Your task to perform on an android device: turn on sleep mode Image 0: 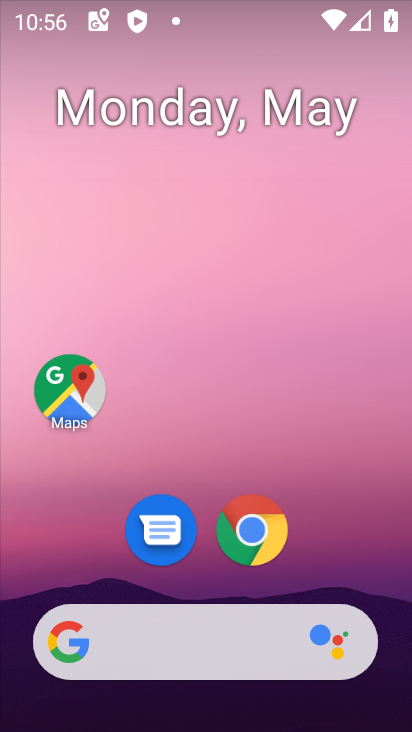
Step 0: drag from (333, 555) to (236, 159)
Your task to perform on an android device: turn on sleep mode Image 1: 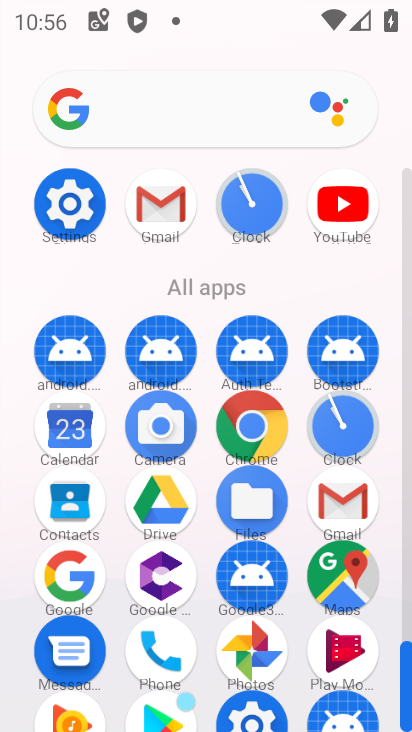
Step 1: click (70, 204)
Your task to perform on an android device: turn on sleep mode Image 2: 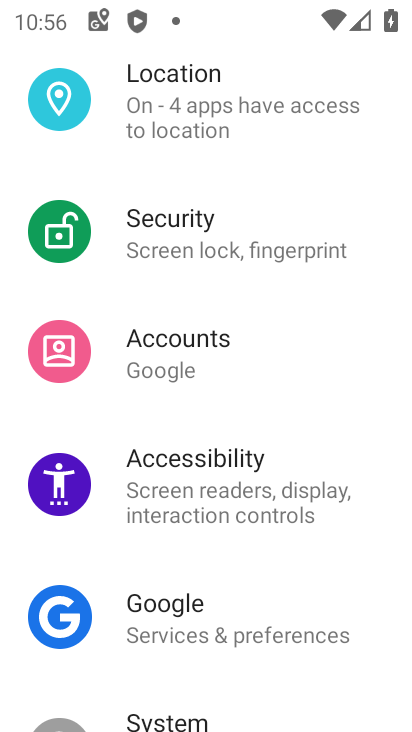
Step 2: drag from (262, 370) to (285, 501)
Your task to perform on an android device: turn on sleep mode Image 3: 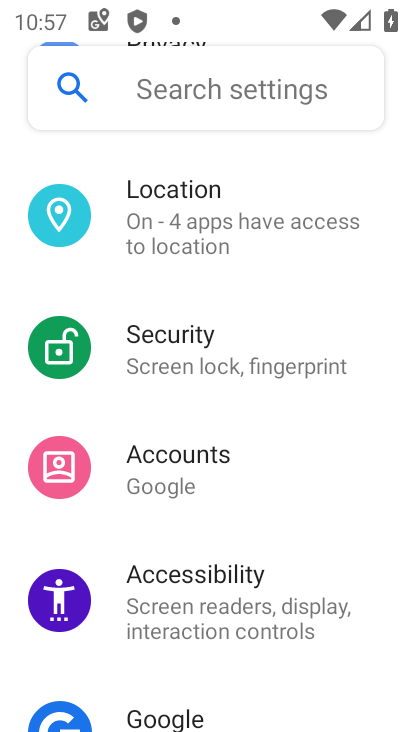
Step 3: drag from (244, 305) to (241, 421)
Your task to perform on an android device: turn on sleep mode Image 4: 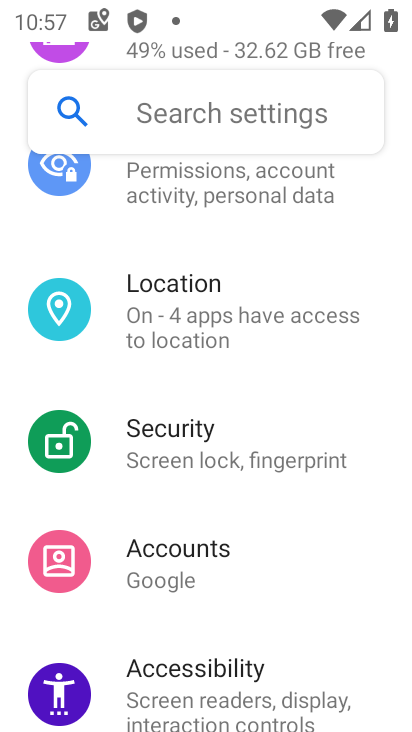
Step 4: drag from (222, 250) to (239, 407)
Your task to perform on an android device: turn on sleep mode Image 5: 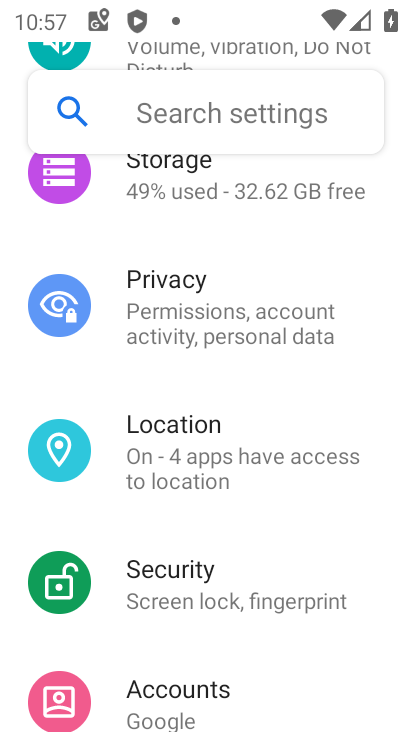
Step 5: drag from (234, 266) to (231, 380)
Your task to perform on an android device: turn on sleep mode Image 6: 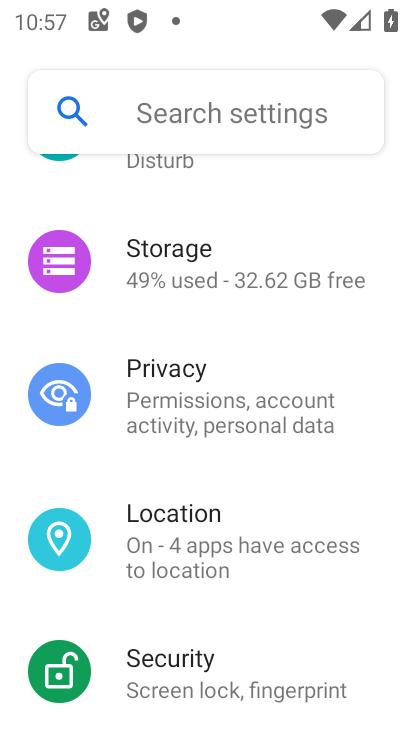
Step 6: drag from (225, 224) to (238, 362)
Your task to perform on an android device: turn on sleep mode Image 7: 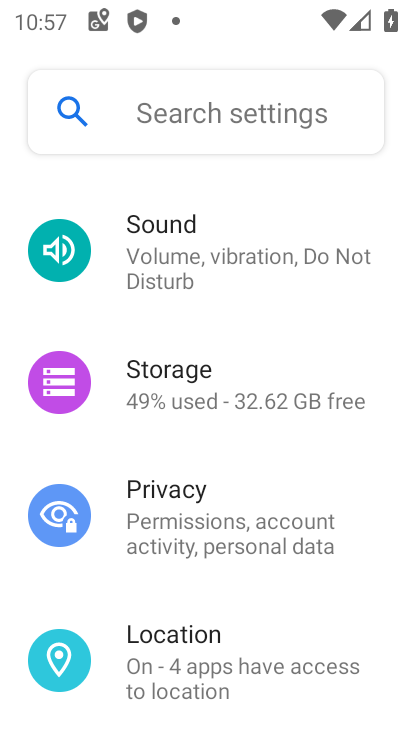
Step 7: drag from (236, 212) to (243, 320)
Your task to perform on an android device: turn on sleep mode Image 8: 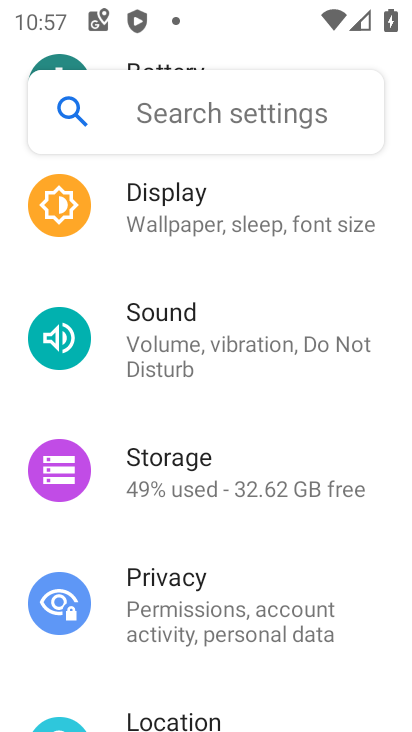
Step 8: click (234, 225)
Your task to perform on an android device: turn on sleep mode Image 9: 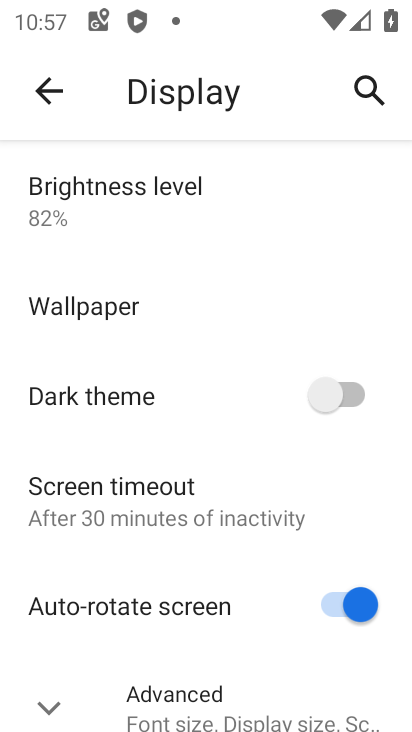
Step 9: click (149, 487)
Your task to perform on an android device: turn on sleep mode Image 10: 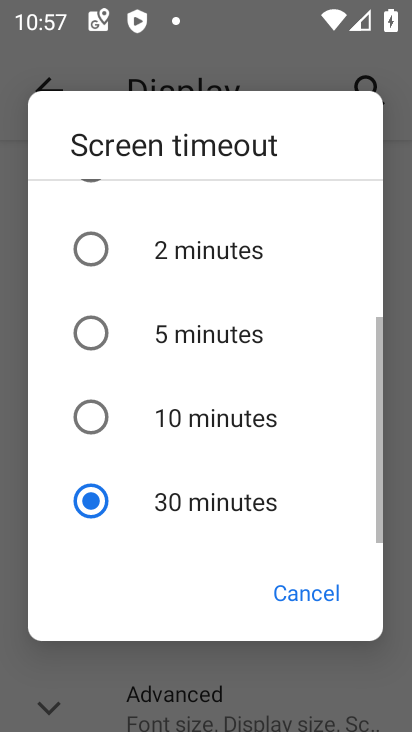
Step 10: drag from (199, 324) to (228, 391)
Your task to perform on an android device: turn on sleep mode Image 11: 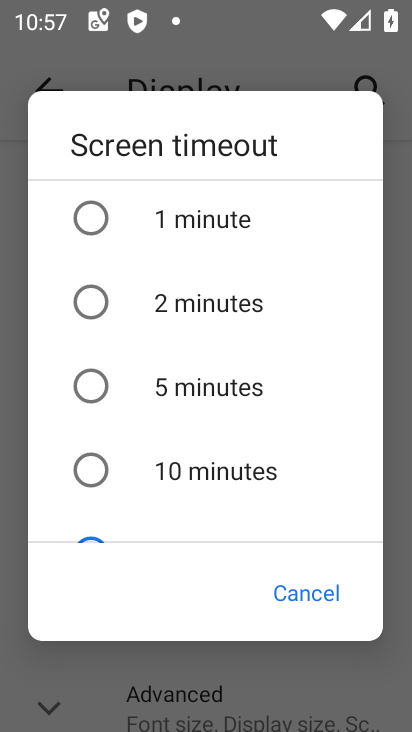
Step 11: drag from (227, 253) to (227, 357)
Your task to perform on an android device: turn on sleep mode Image 12: 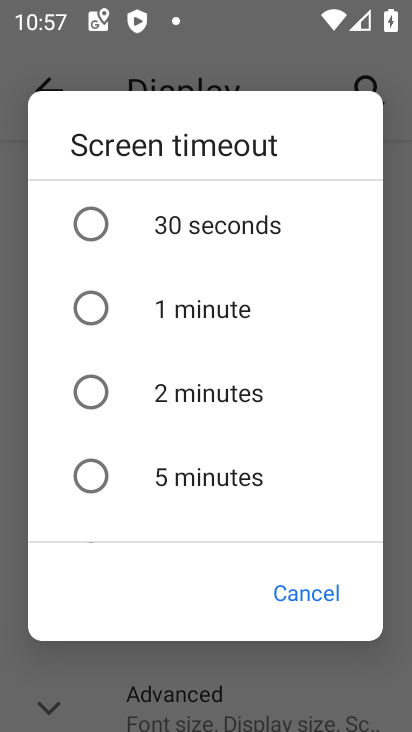
Step 12: drag from (185, 239) to (224, 347)
Your task to perform on an android device: turn on sleep mode Image 13: 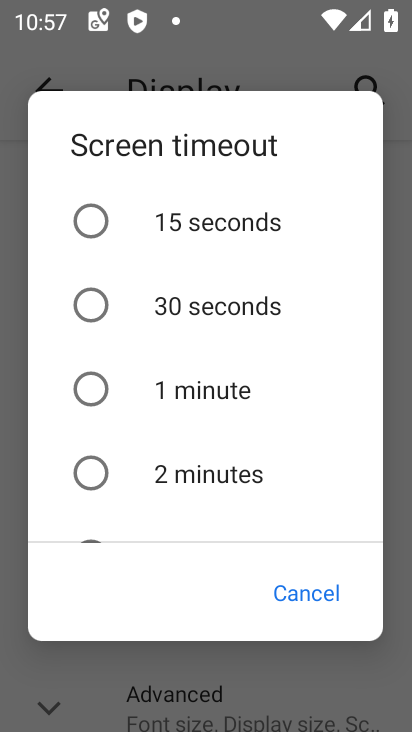
Step 13: drag from (217, 196) to (259, 315)
Your task to perform on an android device: turn on sleep mode Image 14: 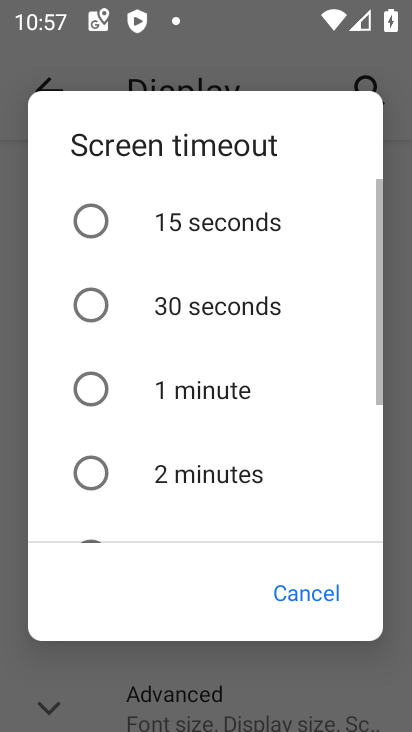
Step 14: drag from (202, 259) to (206, 354)
Your task to perform on an android device: turn on sleep mode Image 15: 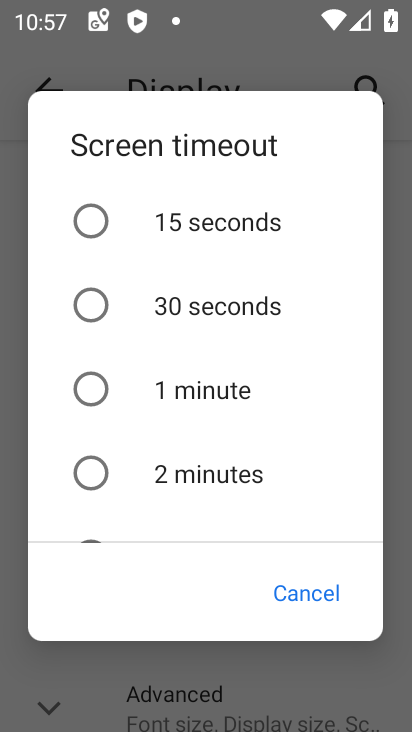
Step 15: click (286, 572)
Your task to perform on an android device: turn on sleep mode Image 16: 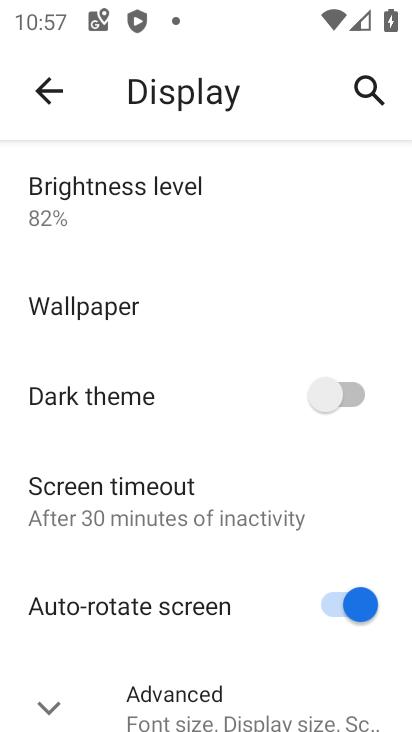
Step 16: click (284, 581)
Your task to perform on an android device: turn on sleep mode Image 17: 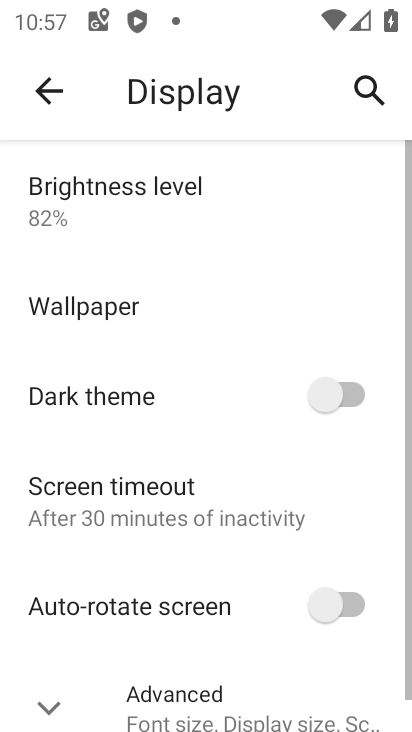
Step 17: click (282, 580)
Your task to perform on an android device: turn on sleep mode Image 18: 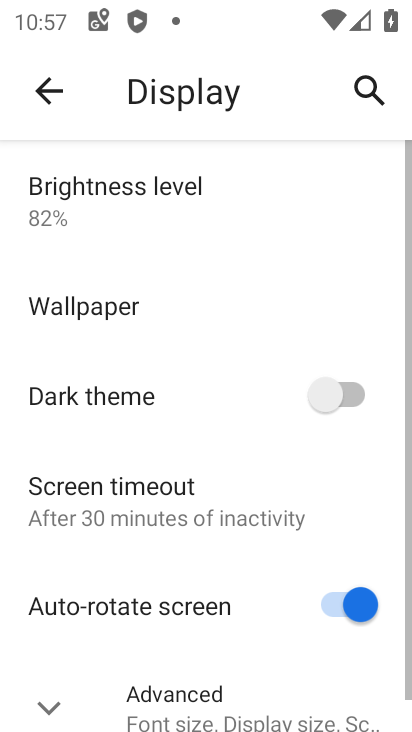
Step 18: drag from (250, 532) to (272, 271)
Your task to perform on an android device: turn on sleep mode Image 19: 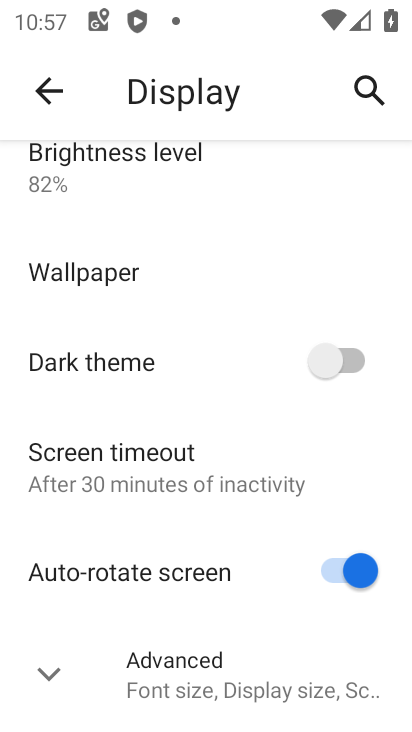
Step 19: click (185, 652)
Your task to perform on an android device: turn on sleep mode Image 20: 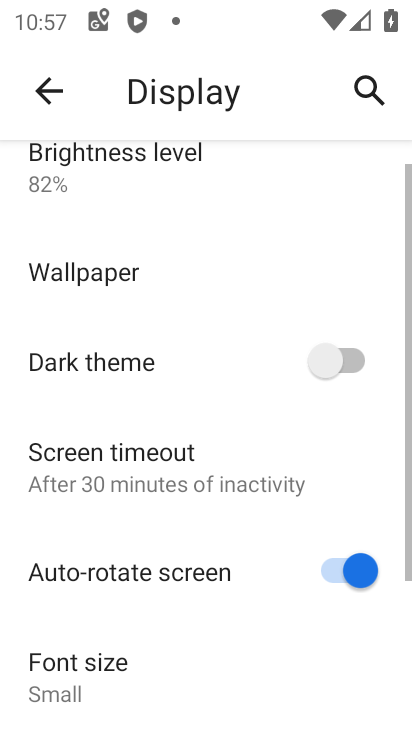
Step 20: drag from (183, 649) to (199, 423)
Your task to perform on an android device: turn on sleep mode Image 21: 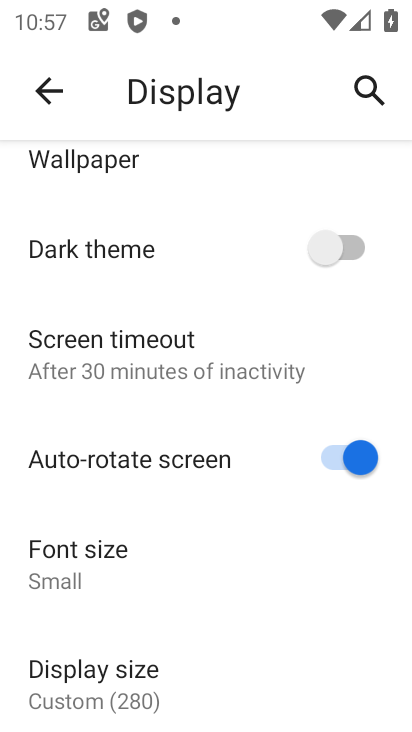
Step 21: click (105, 670)
Your task to perform on an android device: turn on sleep mode Image 22: 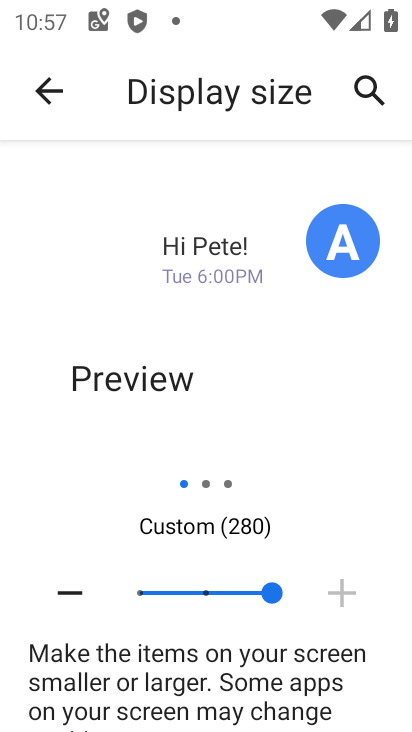
Step 22: drag from (135, 582) to (183, 381)
Your task to perform on an android device: turn on sleep mode Image 23: 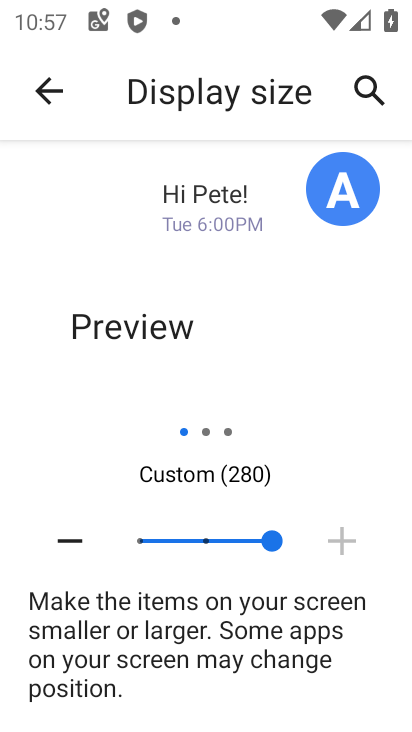
Step 23: click (216, 541)
Your task to perform on an android device: turn on sleep mode Image 24: 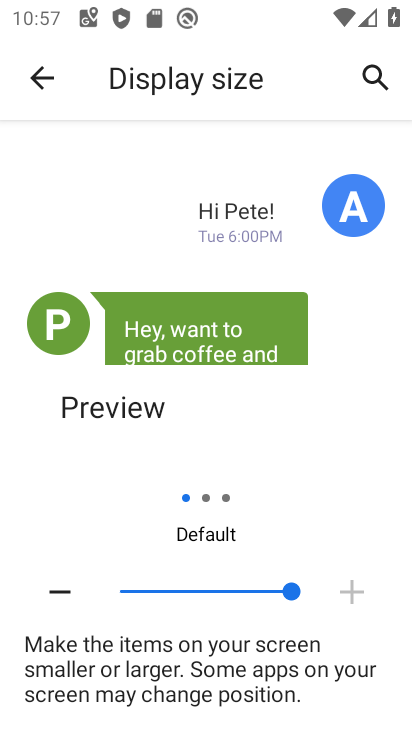
Step 24: click (48, 80)
Your task to perform on an android device: turn on sleep mode Image 25: 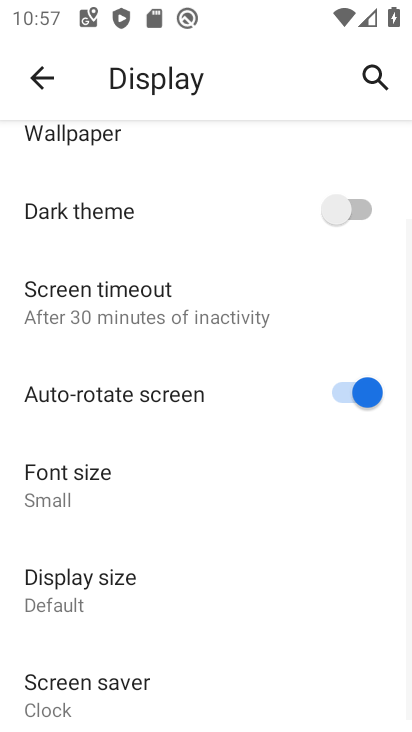
Step 25: drag from (130, 644) to (159, 462)
Your task to perform on an android device: turn on sleep mode Image 26: 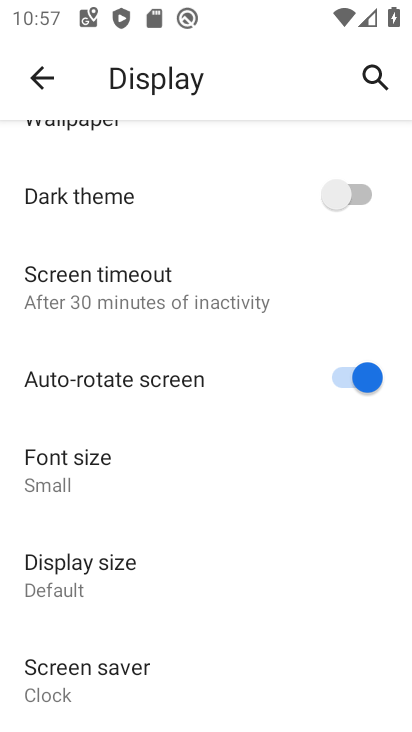
Step 26: click (113, 659)
Your task to perform on an android device: turn on sleep mode Image 27: 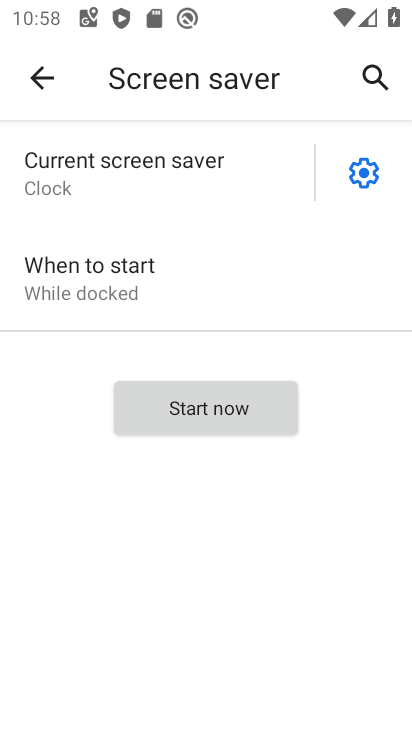
Step 27: click (364, 173)
Your task to perform on an android device: turn on sleep mode Image 28: 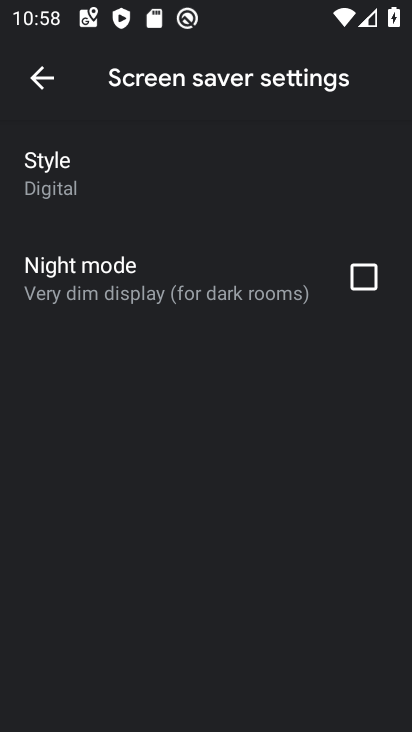
Step 28: click (364, 173)
Your task to perform on an android device: turn on sleep mode Image 29: 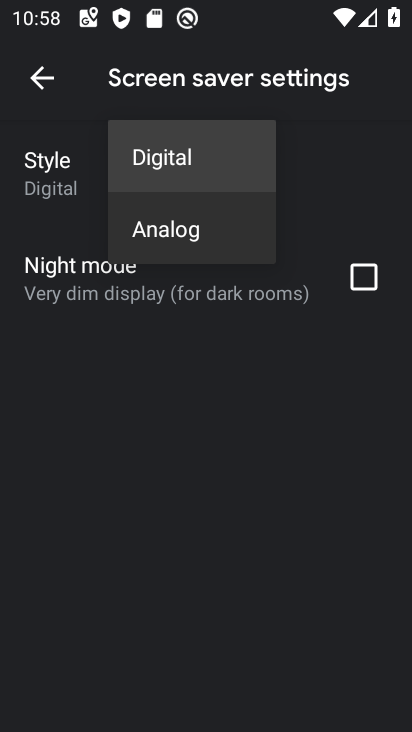
Step 29: click (364, 173)
Your task to perform on an android device: turn on sleep mode Image 30: 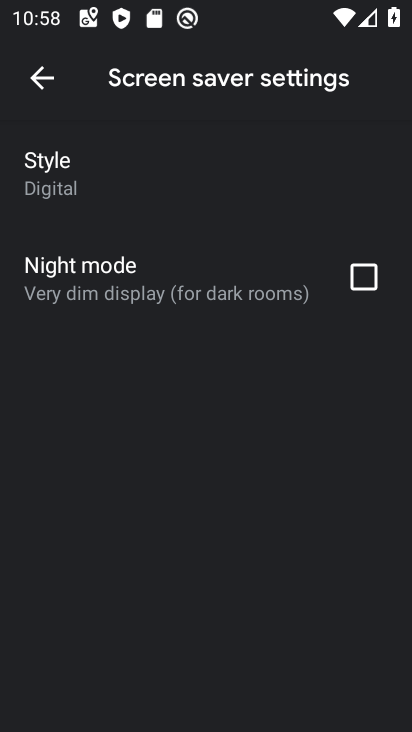
Step 30: click (380, 272)
Your task to perform on an android device: turn on sleep mode Image 31: 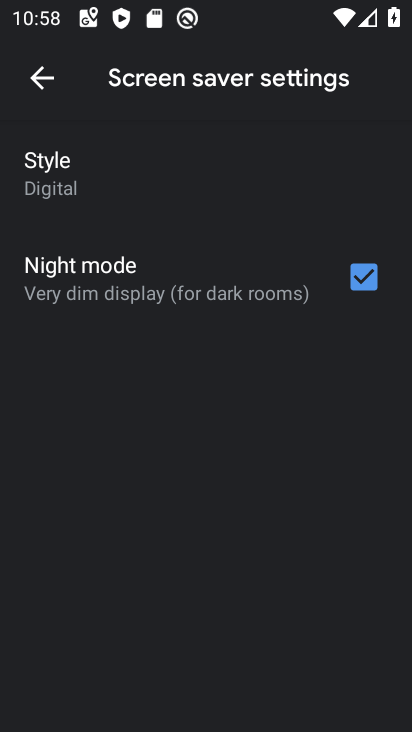
Step 31: click (43, 97)
Your task to perform on an android device: turn on sleep mode Image 32: 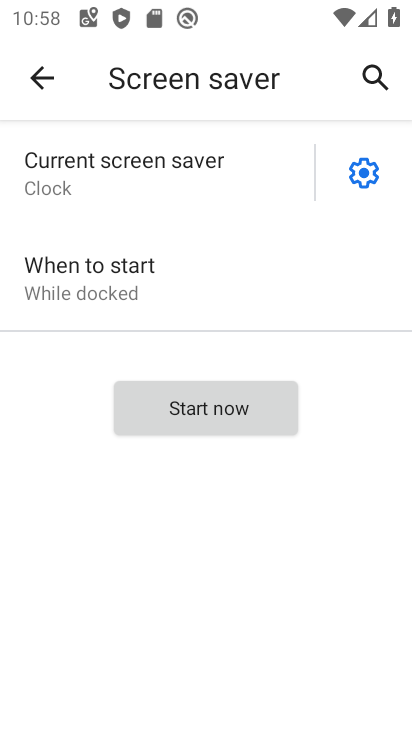
Step 32: click (116, 288)
Your task to perform on an android device: turn on sleep mode Image 33: 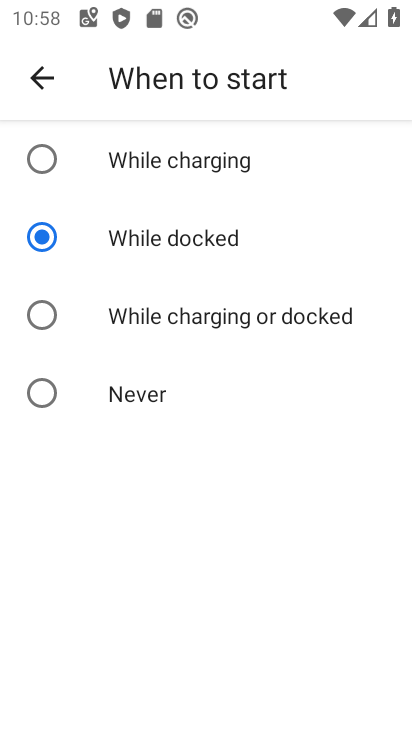
Step 33: click (48, 83)
Your task to perform on an android device: turn on sleep mode Image 34: 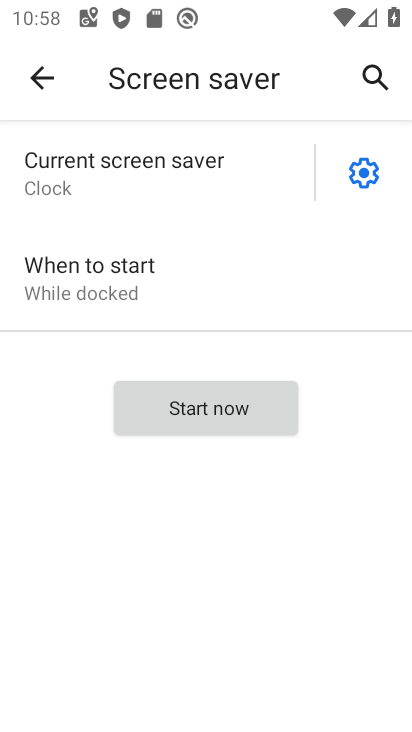
Step 34: task complete